Your task to perform on an android device: Go to settings Image 0: 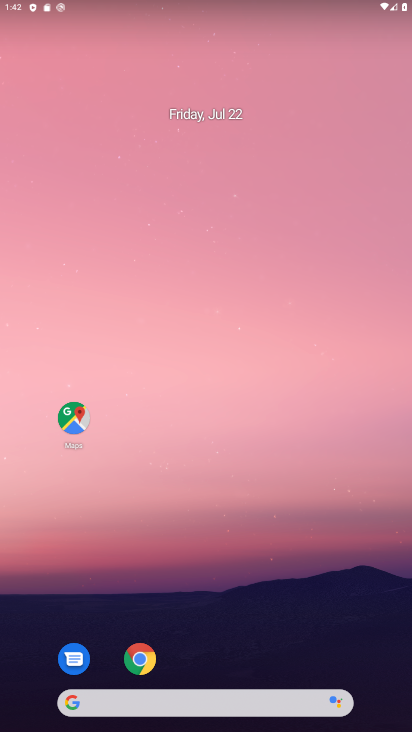
Step 0: drag from (152, 67) to (315, 14)
Your task to perform on an android device: Go to settings Image 1: 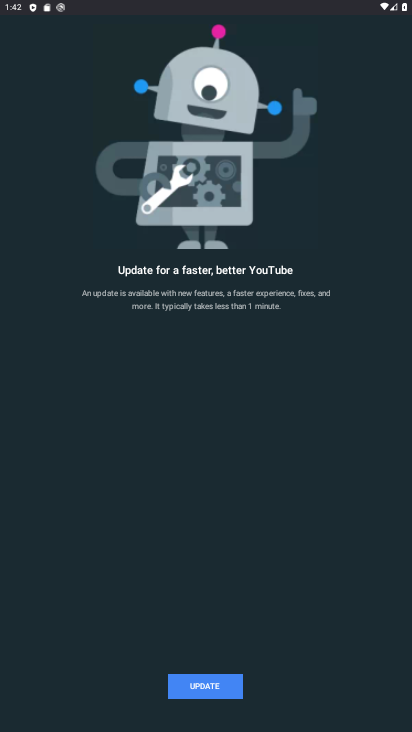
Step 1: press back button
Your task to perform on an android device: Go to settings Image 2: 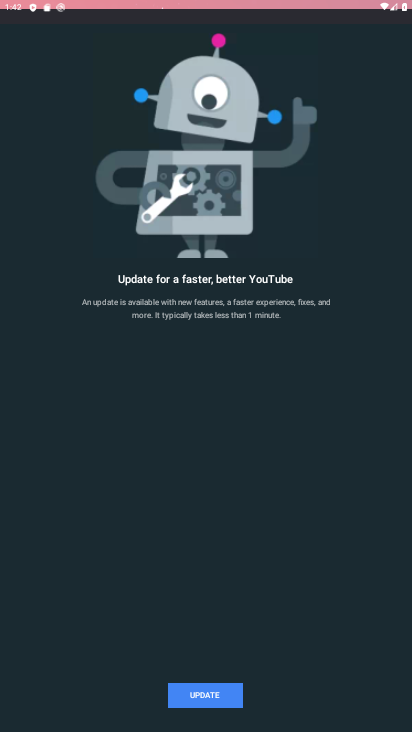
Step 2: press back button
Your task to perform on an android device: Go to settings Image 3: 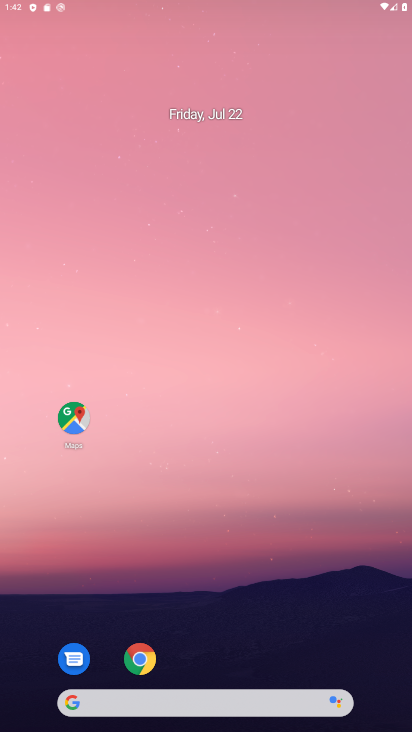
Step 3: press back button
Your task to perform on an android device: Go to settings Image 4: 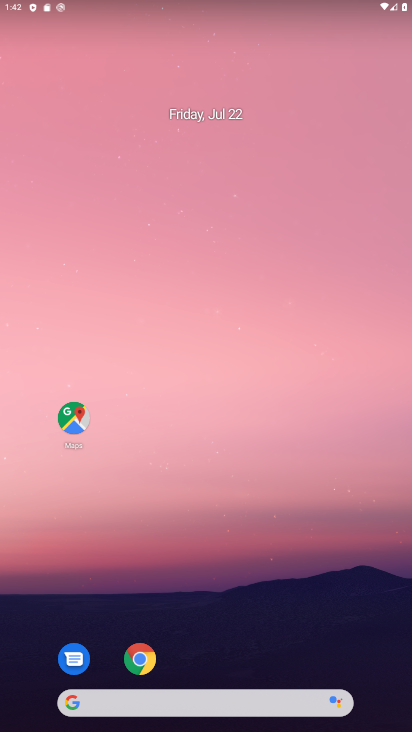
Step 4: drag from (239, 517) to (191, 139)
Your task to perform on an android device: Go to settings Image 5: 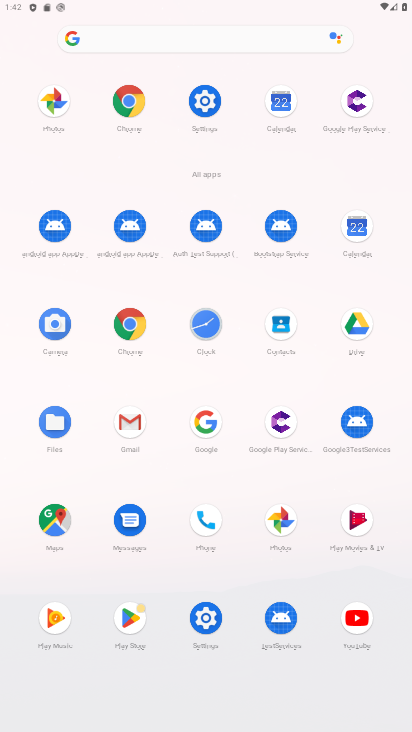
Step 5: click (201, 113)
Your task to perform on an android device: Go to settings Image 6: 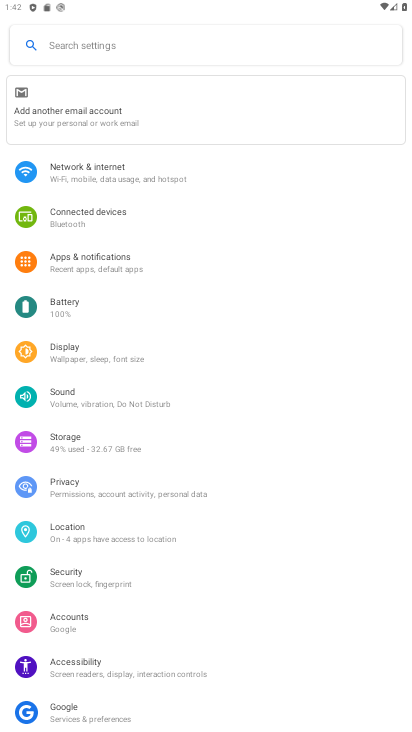
Step 6: drag from (124, 508) to (57, 169)
Your task to perform on an android device: Go to settings Image 7: 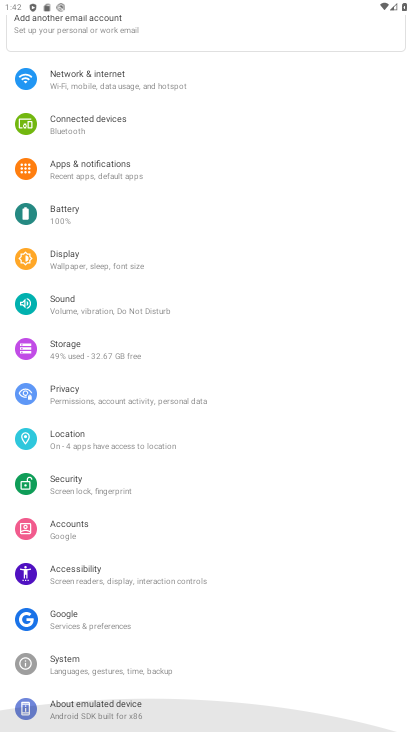
Step 7: drag from (127, 476) to (107, 130)
Your task to perform on an android device: Go to settings Image 8: 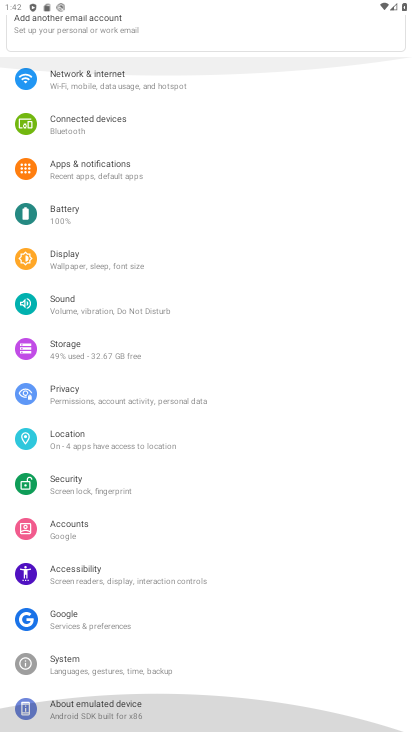
Step 8: drag from (145, 381) to (149, 148)
Your task to perform on an android device: Go to settings Image 9: 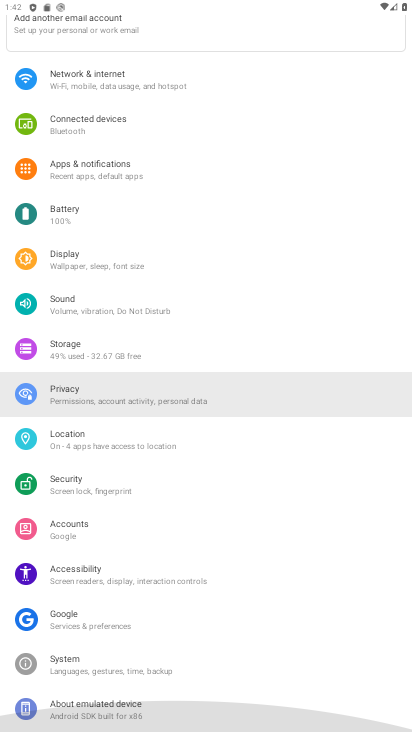
Step 9: drag from (141, 482) to (77, 21)
Your task to perform on an android device: Go to settings Image 10: 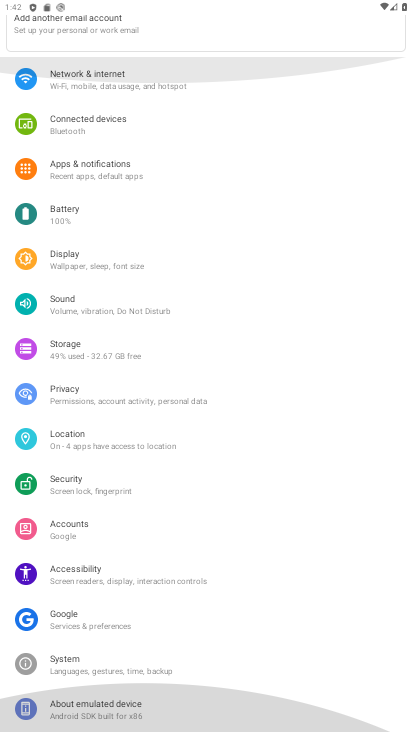
Step 10: drag from (42, 353) to (70, 89)
Your task to perform on an android device: Go to settings Image 11: 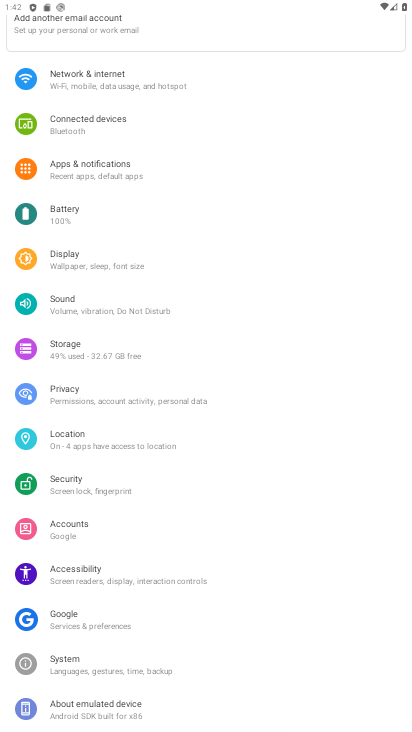
Step 11: drag from (122, 470) to (105, 143)
Your task to perform on an android device: Go to settings Image 12: 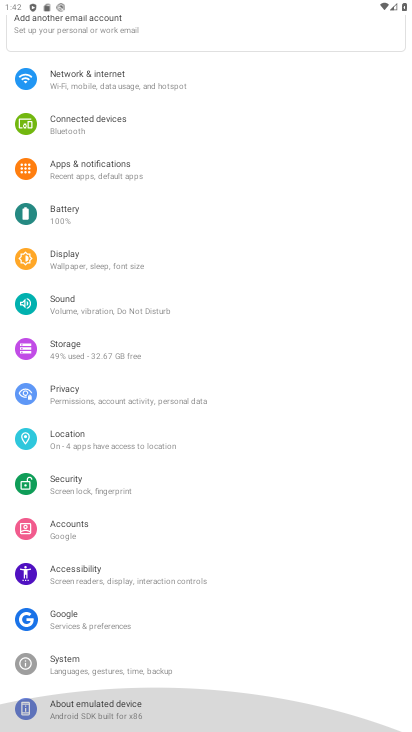
Step 12: drag from (70, 561) to (37, 234)
Your task to perform on an android device: Go to settings Image 13: 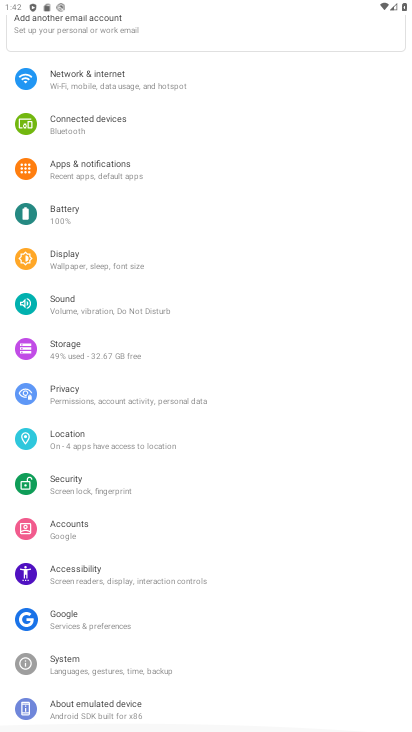
Step 13: drag from (74, 491) to (103, 57)
Your task to perform on an android device: Go to settings Image 14: 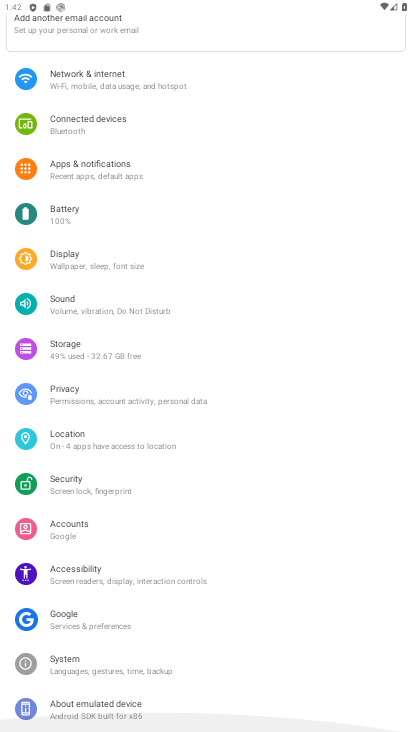
Step 14: drag from (62, 280) to (88, 539)
Your task to perform on an android device: Go to settings Image 15: 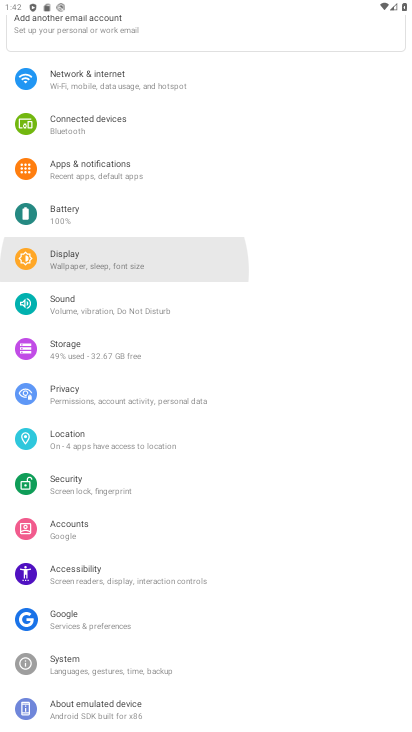
Step 15: drag from (71, 218) to (29, 463)
Your task to perform on an android device: Go to settings Image 16: 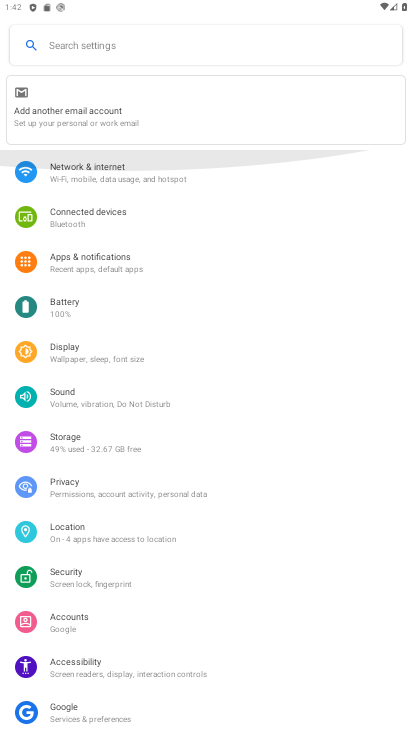
Step 16: drag from (36, 354) to (67, 494)
Your task to perform on an android device: Go to settings Image 17: 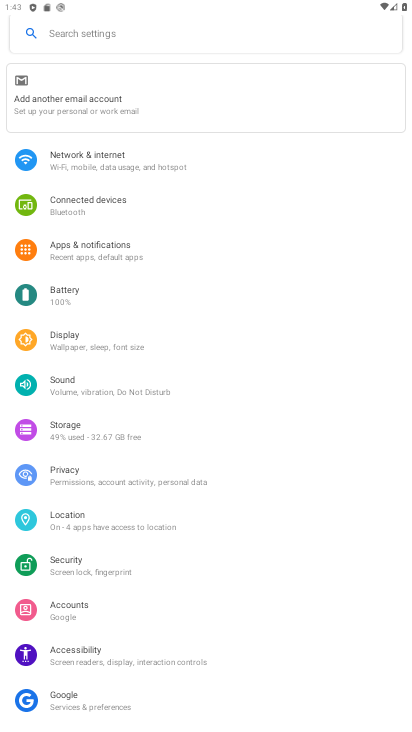
Step 17: drag from (132, 242) to (155, 476)
Your task to perform on an android device: Go to settings Image 18: 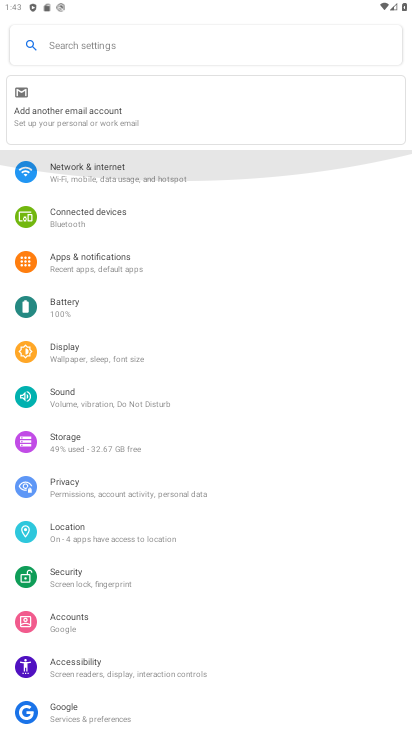
Step 18: drag from (120, 207) to (177, 458)
Your task to perform on an android device: Go to settings Image 19: 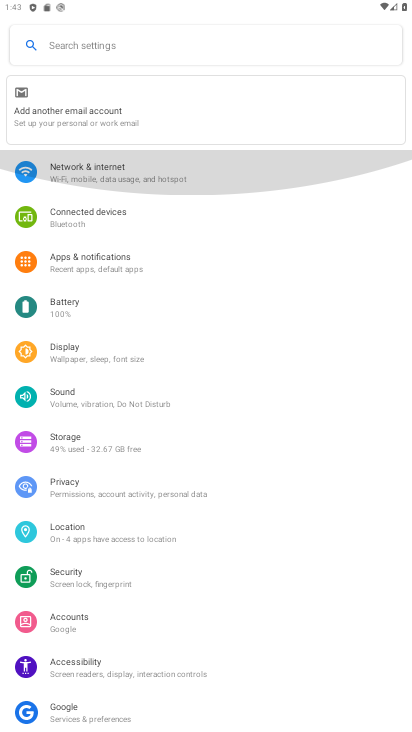
Step 19: drag from (139, 232) to (178, 508)
Your task to perform on an android device: Go to settings Image 20: 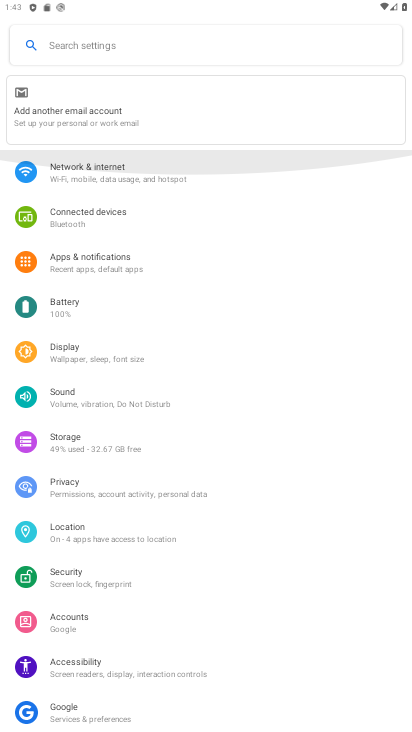
Step 20: drag from (91, 266) to (83, 452)
Your task to perform on an android device: Go to settings Image 21: 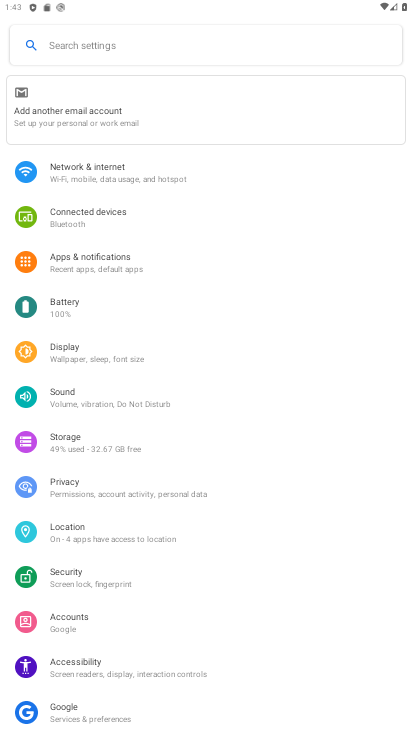
Step 21: drag from (105, 289) to (106, 424)
Your task to perform on an android device: Go to settings Image 22: 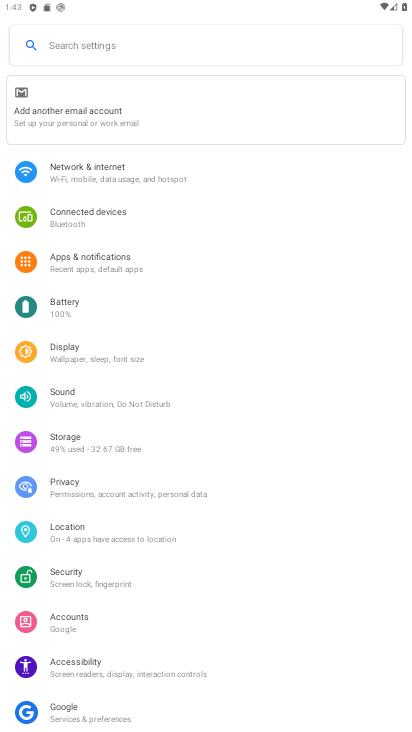
Step 22: drag from (139, 541) to (122, 460)
Your task to perform on an android device: Go to settings Image 23: 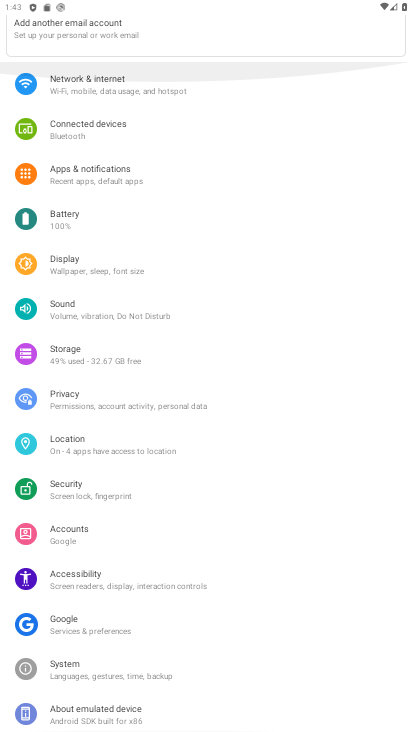
Step 23: click (136, 535)
Your task to perform on an android device: Go to settings Image 24: 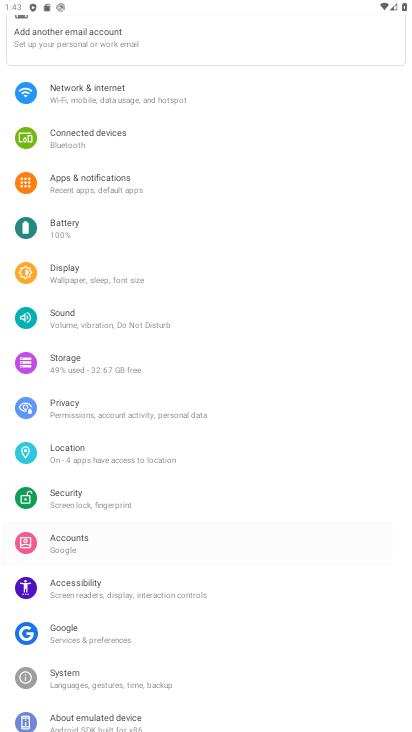
Step 24: click (125, 525)
Your task to perform on an android device: Go to settings Image 25: 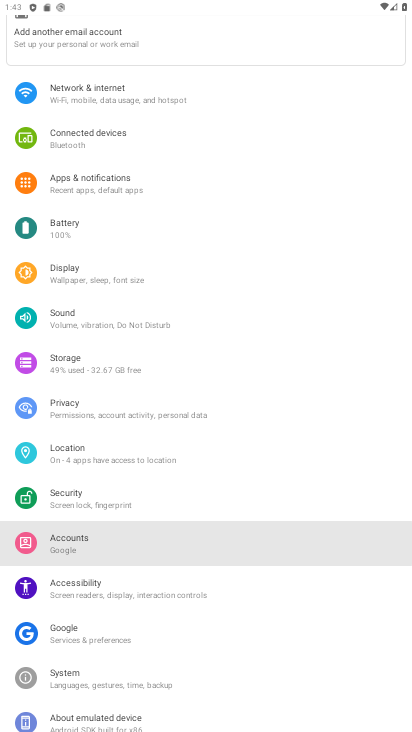
Step 25: drag from (132, 567) to (131, 503)
Your task to perform on an android device: Go to settings Image 26: 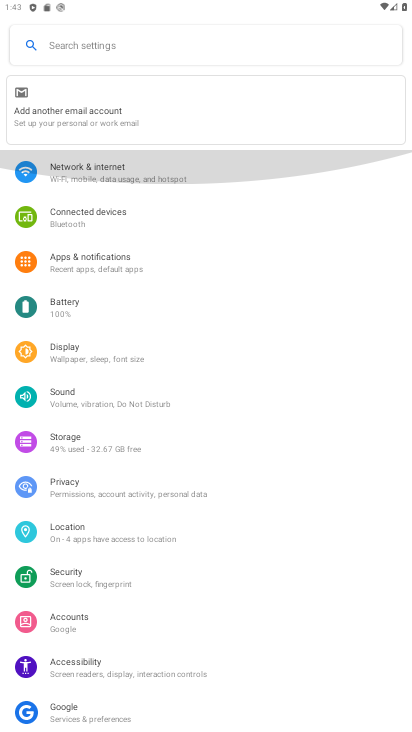
Step 26: drag from (84, 316) to (128, 491)
Your task to perform on an android device: Go to settings Image 27: 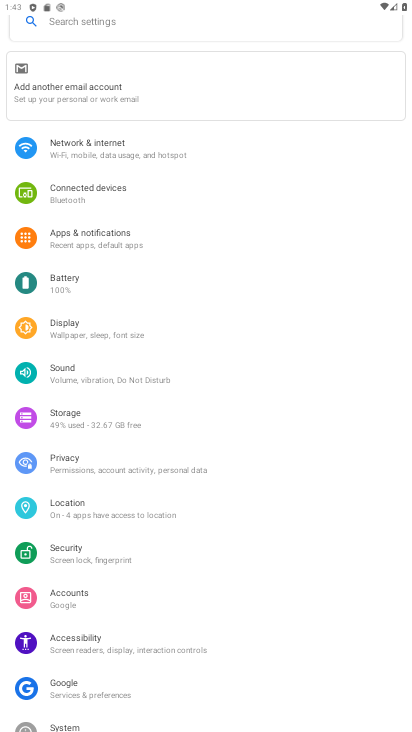
Step 27: drag from (75, 281) to (107, 501)
Your task to perform on an android device: Go to settings Image 28: 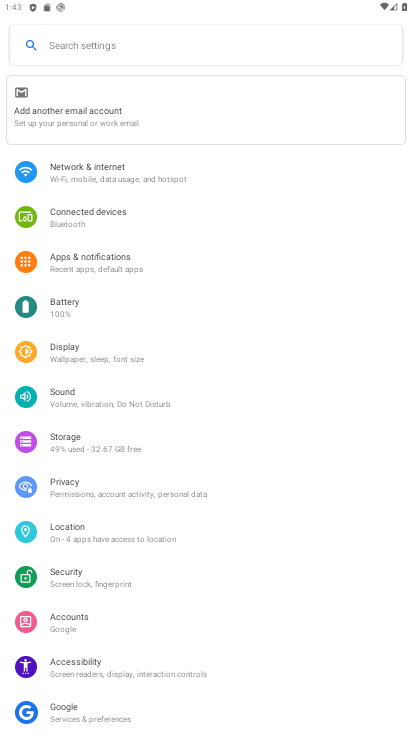
Step 28: drag from (132, 442) to (158, 537)
Your task to perform on an android device: Go to settings Image 29: 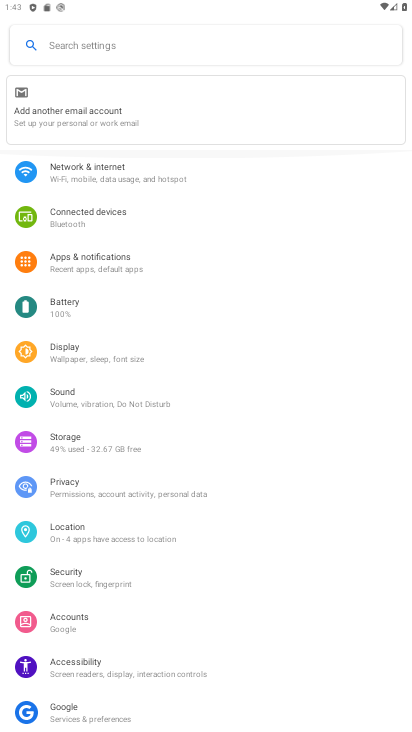
Step 29: drag from (137, 207) to (190, 688)
Your task to perform on an android device: Go to settings Image 30: 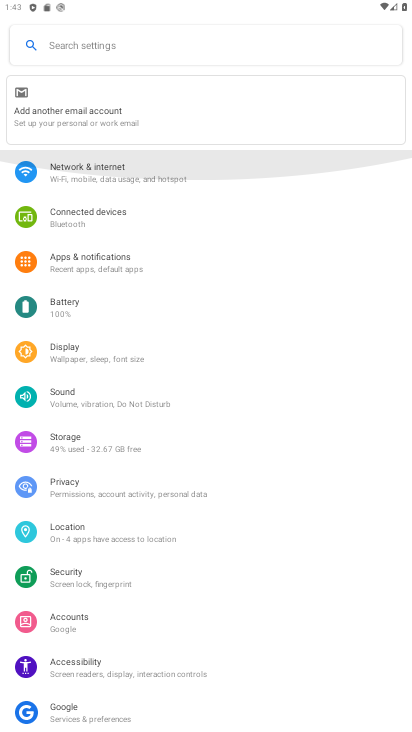
Step 30: drag from (124, 320) to (145, 578)
Your task to perform on an android device: Go to settings Image 31: 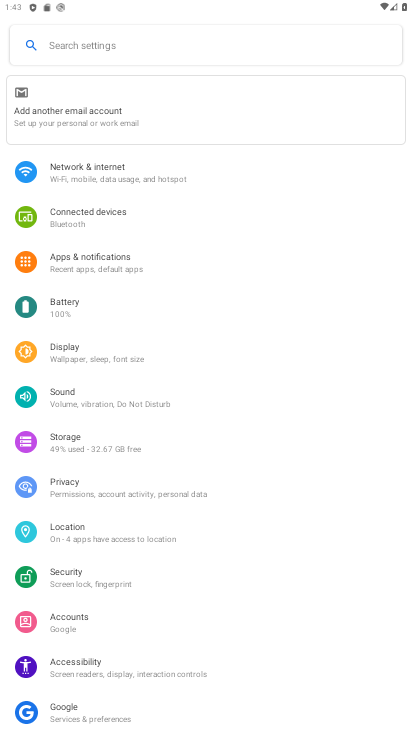
Step 31: drag from (116, 229) to (130, 399)
Your task to perform on an android device: Go to settings Image 32: 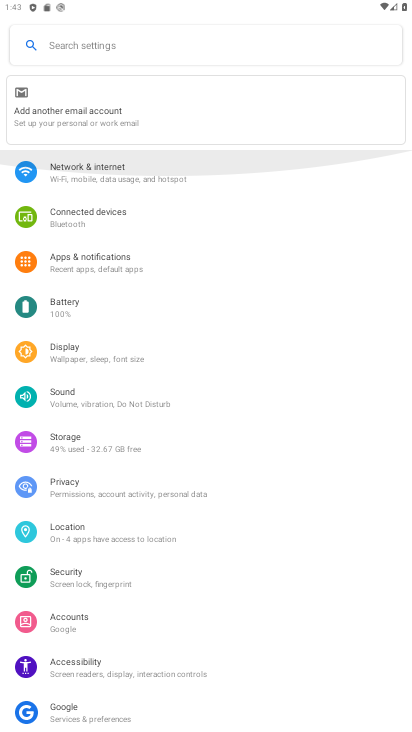
Step 32: click (134, 405)
Your task to perform on an android device: Go to settings Image 33: 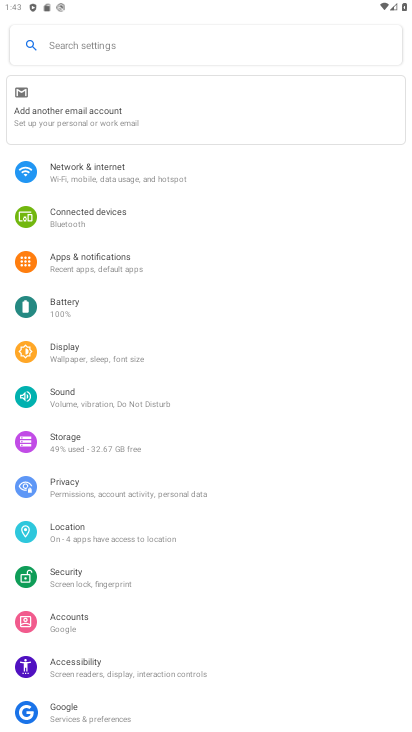
Step 33: task complete